Your task to perform on an android device: delete browsing data in the chrome app Image 0: 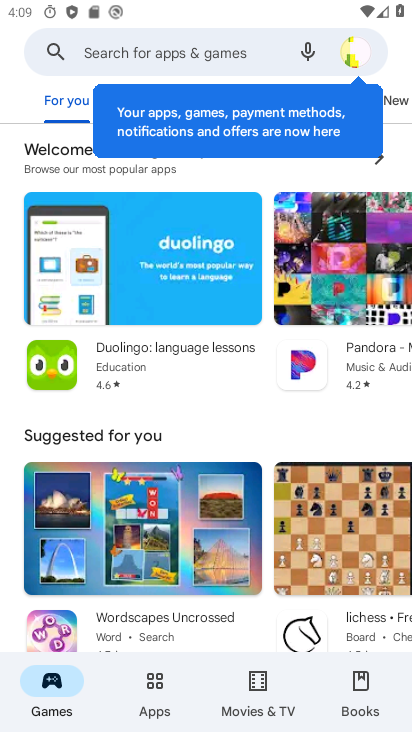
Step 0: press home button
Your task to perform on an android device: delete browsing data in the chrome app Image 1: 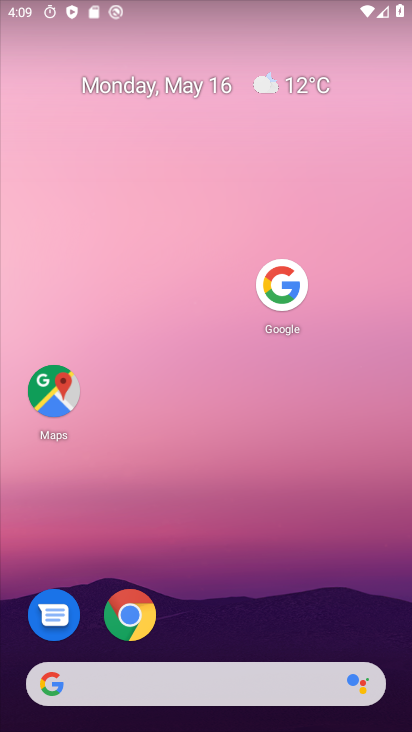
Step 1: click (133, 632)
Your task to perform on an android device: delete browsing data in the chrome app Image 2: 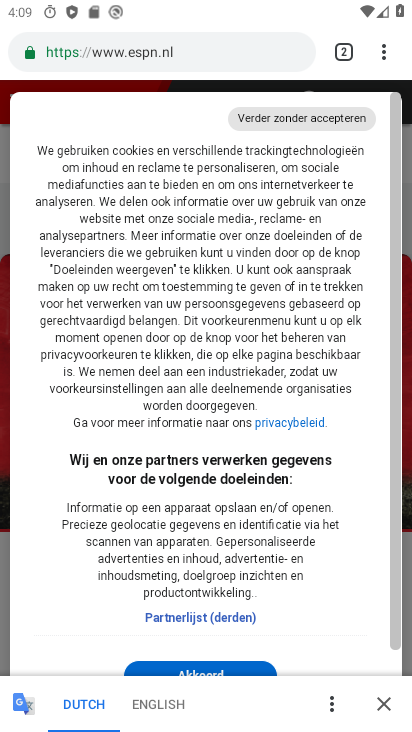
Step 2: click (382, 60)
Your task to perform on an android device: delete browsing data in the chrome app Image 3: 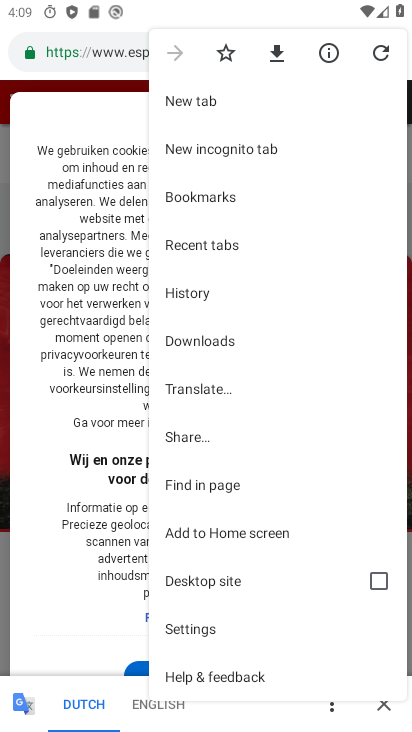
Step 3: click (197, 293)
Your task to perform on an android device: delete browsing data in the chrome app Image 4: 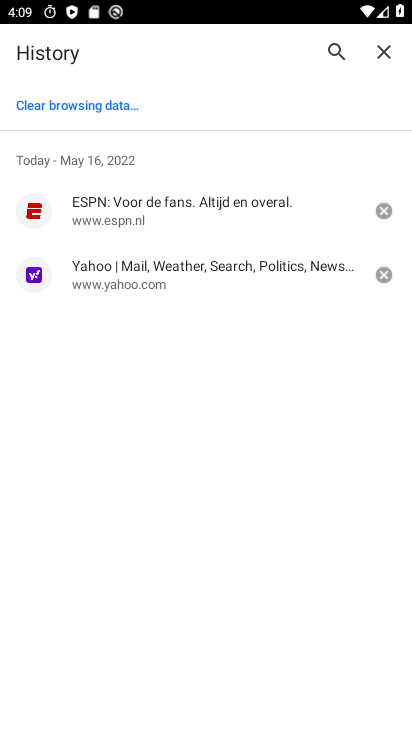
Step 4: click (64, 101)
Your task to perform on an android device: delete browsing data in the chrome app Image 5: 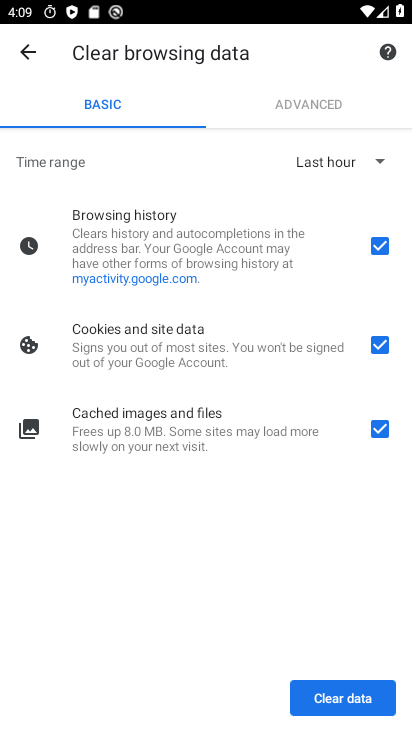
Step 5: click (294, 699)
Your task to perform on an android device: delete browsing data in the chrome app Image 6: 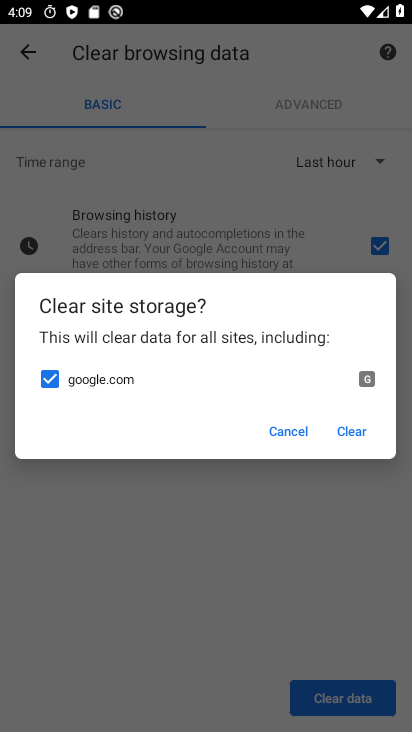
Step 6: click (356, 425)
Your task to perform on an android device: delete browsing data in the chrome app Image 7: 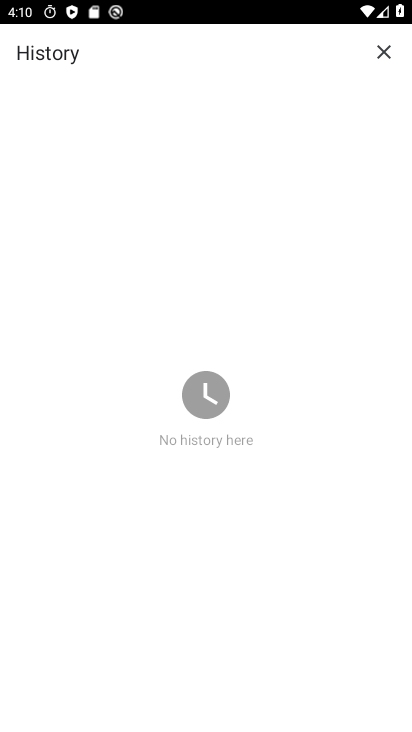
Step 7: task complete